Your task to perform on an android device: open wifi settings Image 0: 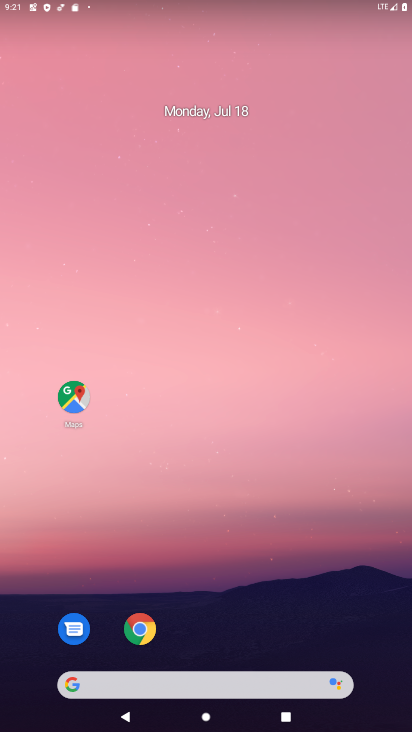
Step 0: drag from (287, 613) to (267, 69)
Your task to perform on an android device: open wifi settings Image 1: 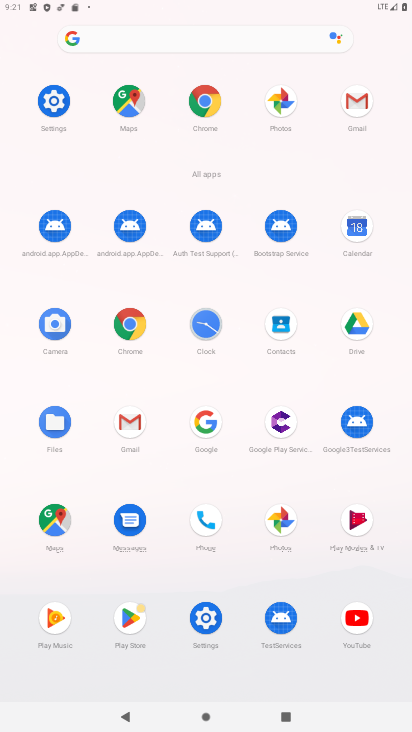
Step 1: click (53, 101)
Your task to perform on an android device: open wifi settings Image 2: 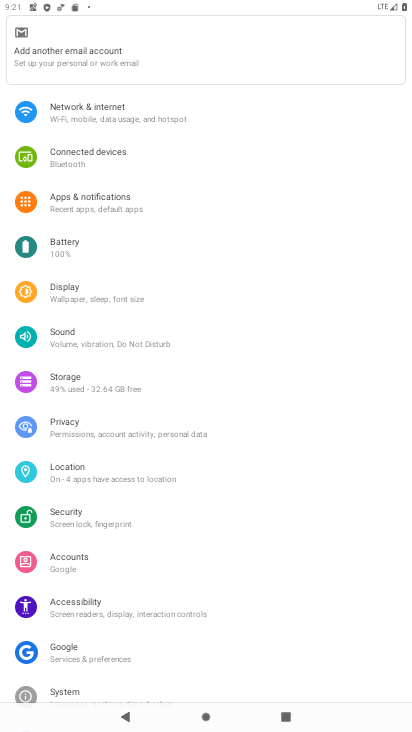
Step 2: click (103, 115)
Your task to perform on an android device: open wifi settings Image 3: 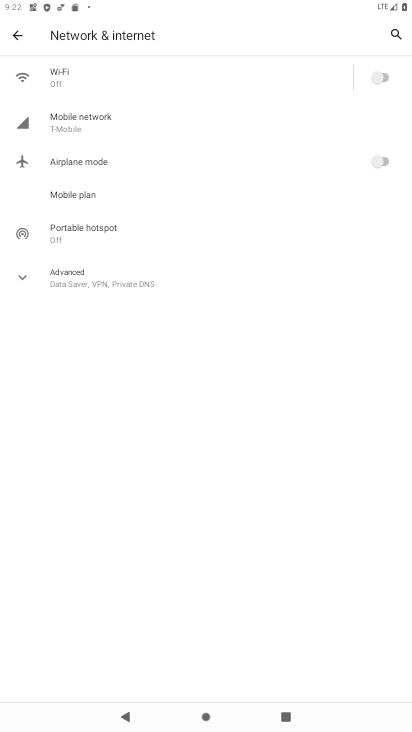
Step 3: click (358, 71)
Your task to perform on an android device: open wifi settings Image 4: 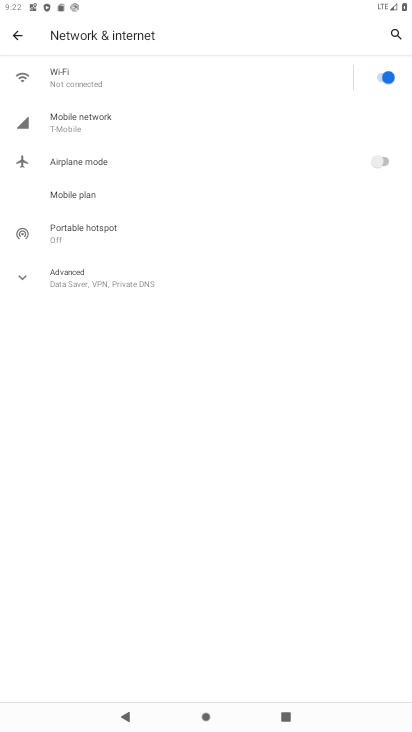
Step 4: click (328, 71)
Your task to perform on an android device: open wifi settings Image 5: 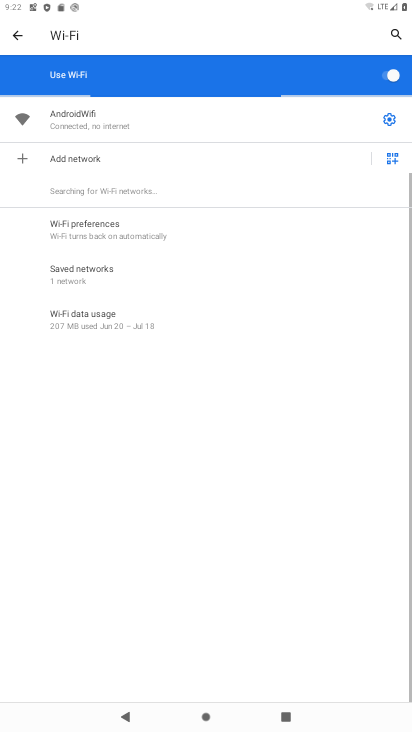
Step 5: click (395, 122)
Your task to perform on an android device: open wifi settings Image 6: 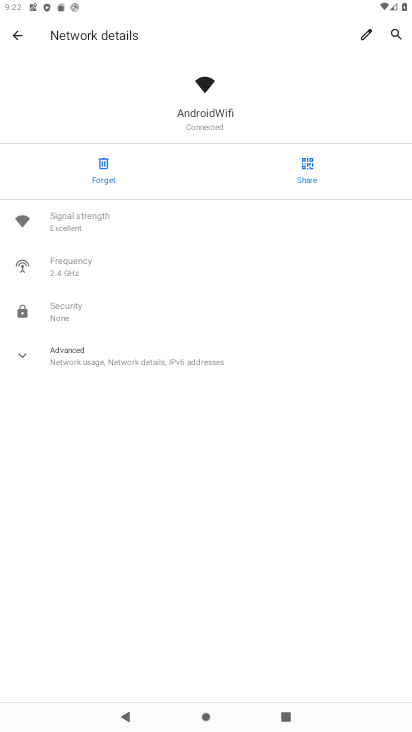
Step 6: task complete